Your task to perform on an android device: turn off smart reply in the gmail app Image 0: 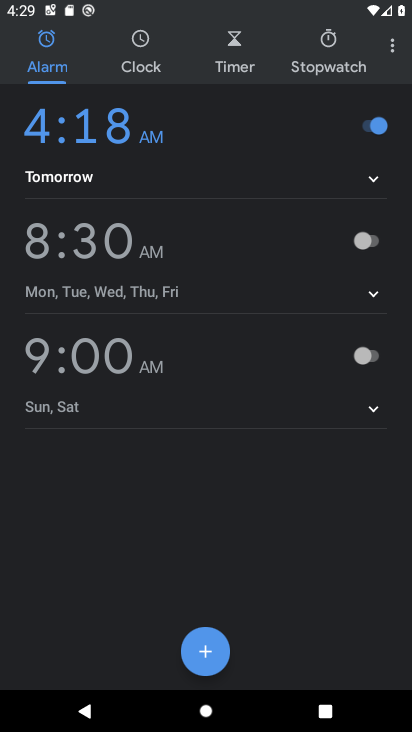
Step 0: press home button
Your task to perform on an android device: turn off smart reply in the gmail app Image 1: 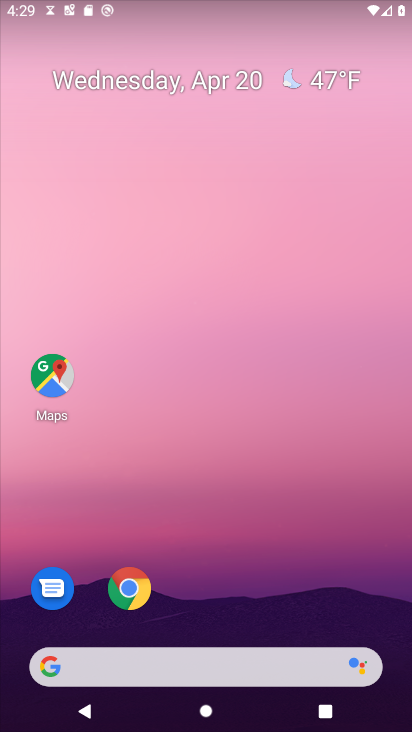
Step 1: drag from (291, 588) to (336, 41)
Your task to perform on an android device: turn off smart reply in the gmail app Image 2: 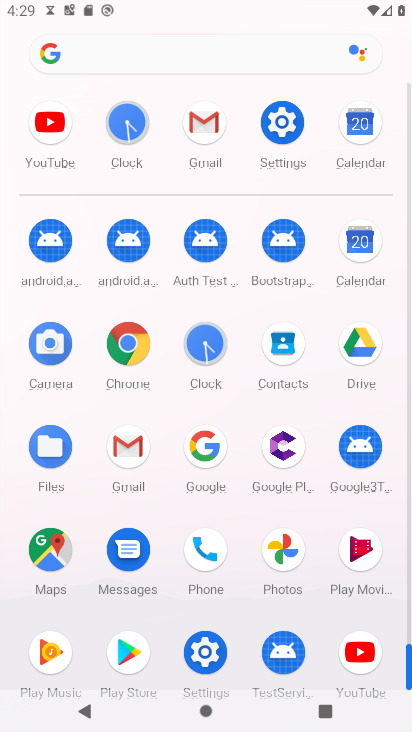
Step 2: click (193, 134)
Your task to perform on an android device: turn off smart reply in the gmail app Image 3: 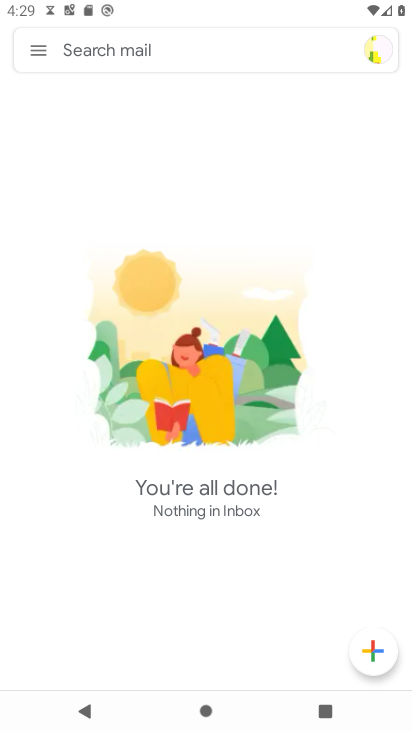
Step 3: click (45, 52)
Your task to perform on an android device: turn off smart reply in the gmail app Image 4: 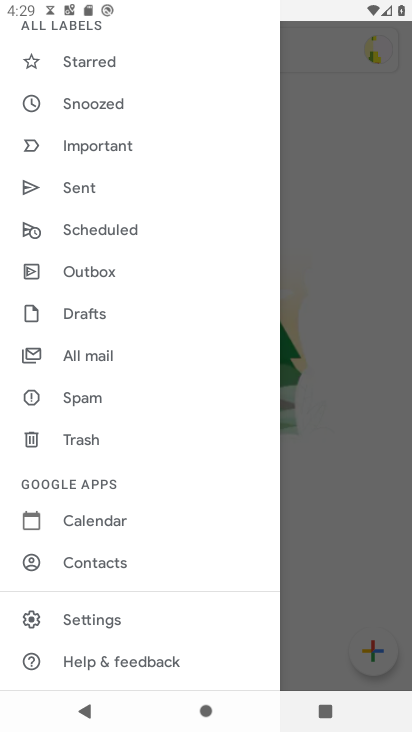
Step 4: click (137, 610)
Your task to perform on an android device: turn off smart reply in the gmail app Image 5: 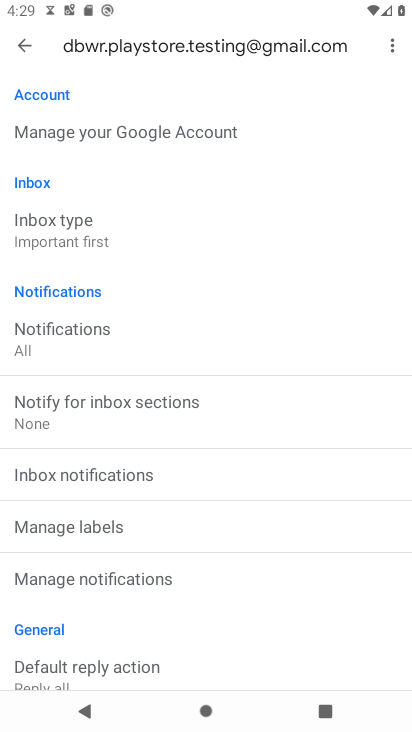
Step 5: drag from (107, 556) to (178, 357)
Your task to perform on an android device: turn off smart reply in the gmail app Image 6: 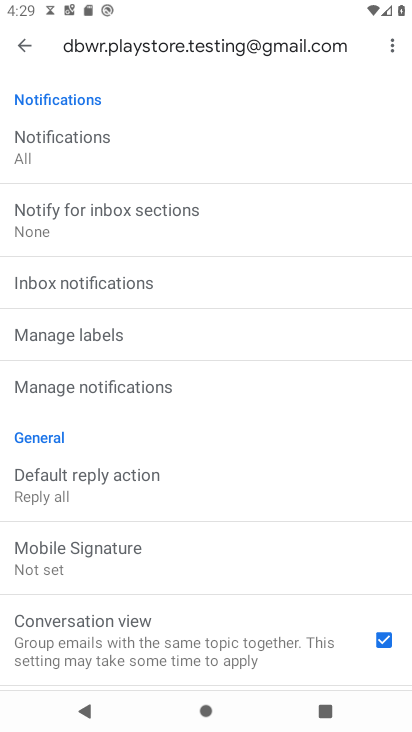
Step 6: drag from (186, 558) to (246, 346)
Your task to perform on an android device: turn off smart reply in the gmail app Image 7: 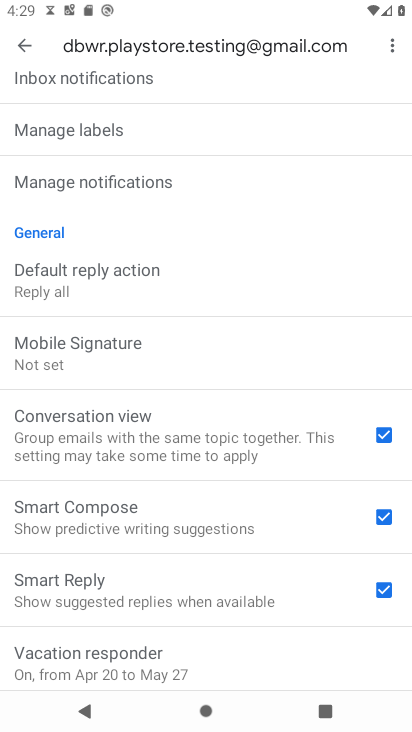
Step 7: click (389, 587)
Your task to perform on an android device: turn off smart reply in the gmail app Image 8: 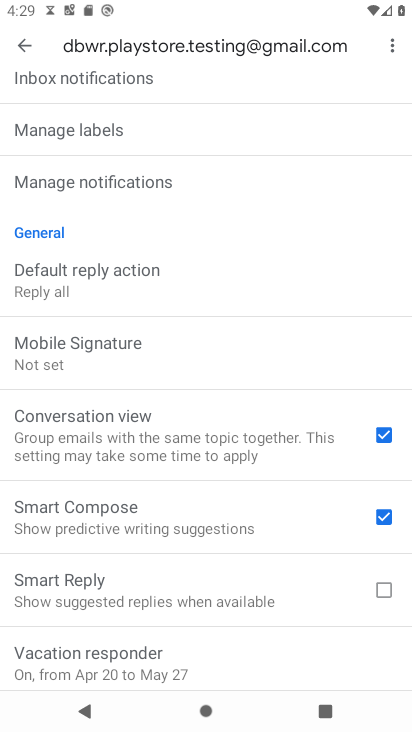
Step 8: task complete